Your task to perform on an android device: Open Google Image 0: 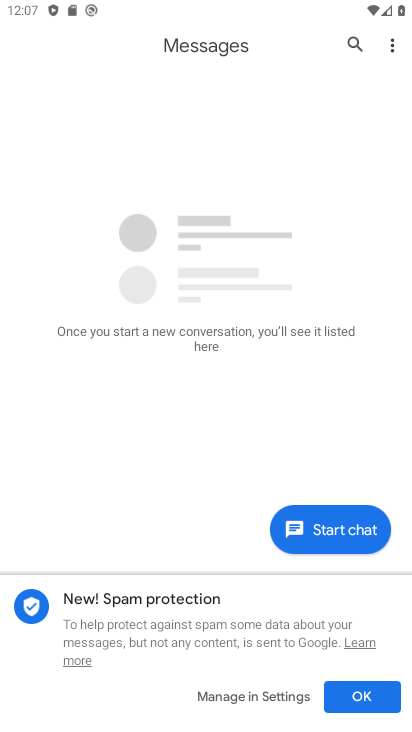
Step 0: press home button
Your task to perform on an android device: Open Google Image 1: 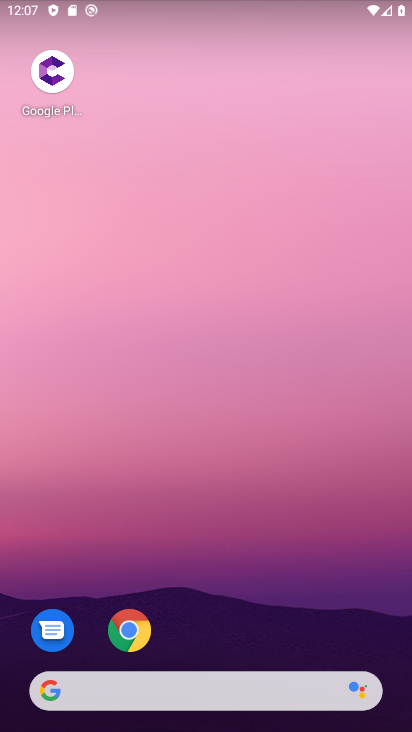
Step 1: drag from (187, 682) to (184, 72)
Your task to perform on an android device: Open Google Image 2: 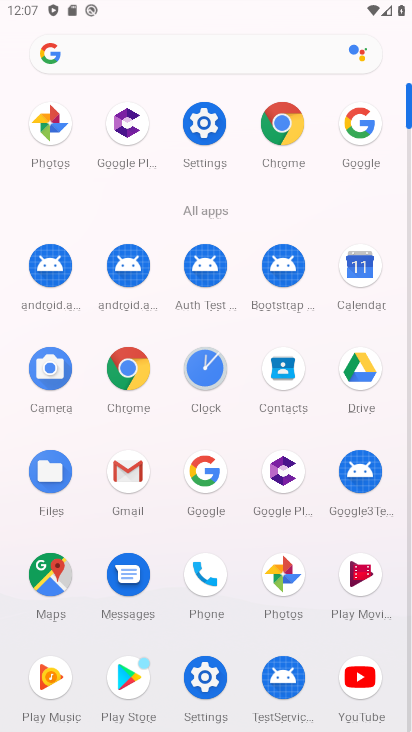
Step 2: click (194, 465)
Your task to perform on an android device: Open Google Image 3: 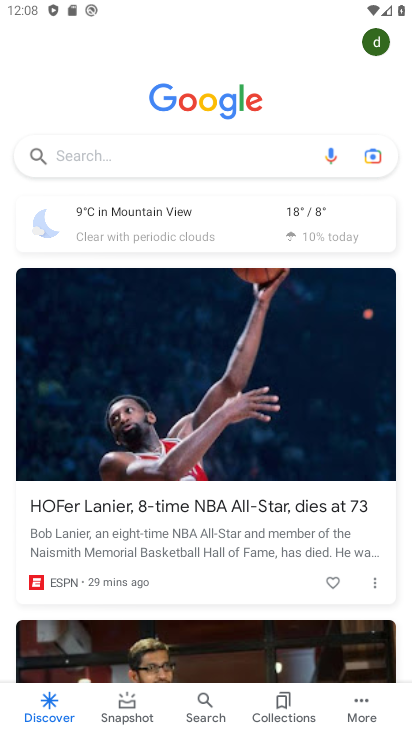
Step 3: task complete